Your task to perform on an android device: Go to settings Image 0: 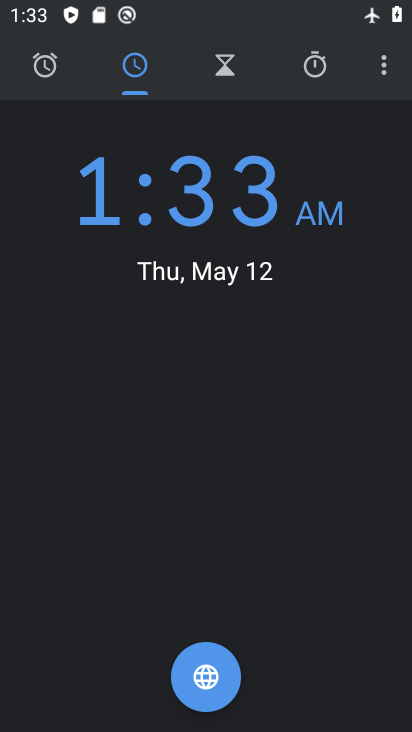
Step 0: press home button
Your task to perform on an android device: Go to settings Image 1: 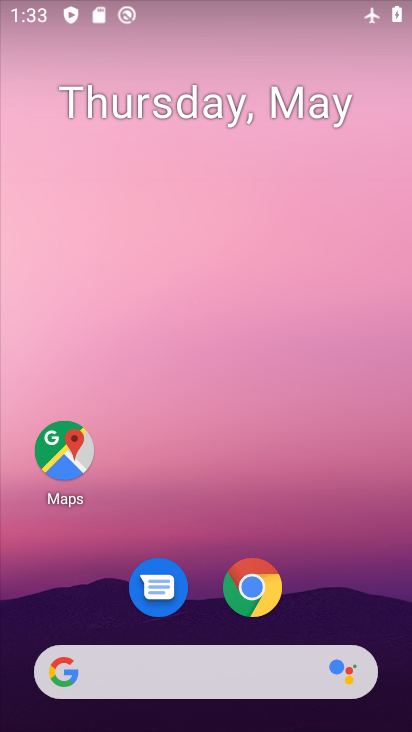
Step 1: drag from (321, 531) to (164, 105)
Your task to perform on an android device: Go to settings Image 2: 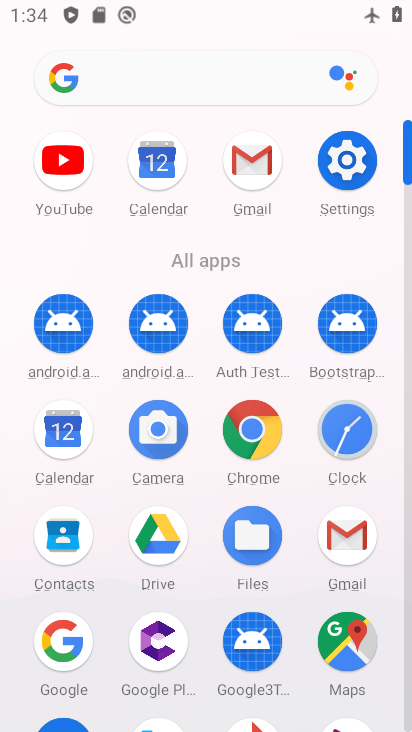
Step 2: click (344, 156)
Your task to perform on an android device: Go to settings Image 3: 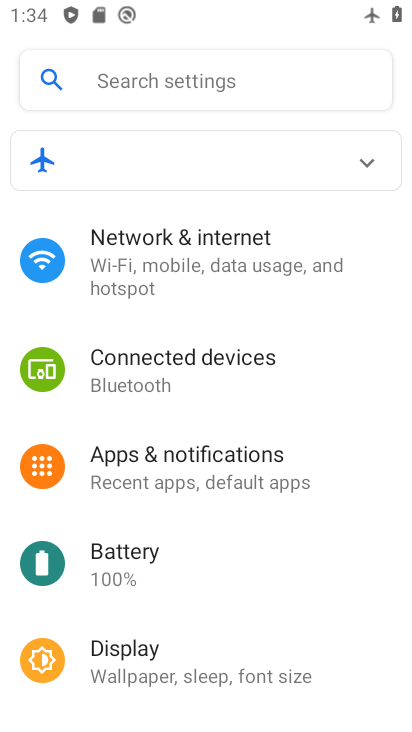
Step 3: task complete